Your task to perform on an android device: check the backup settings in the google photos Image 0: 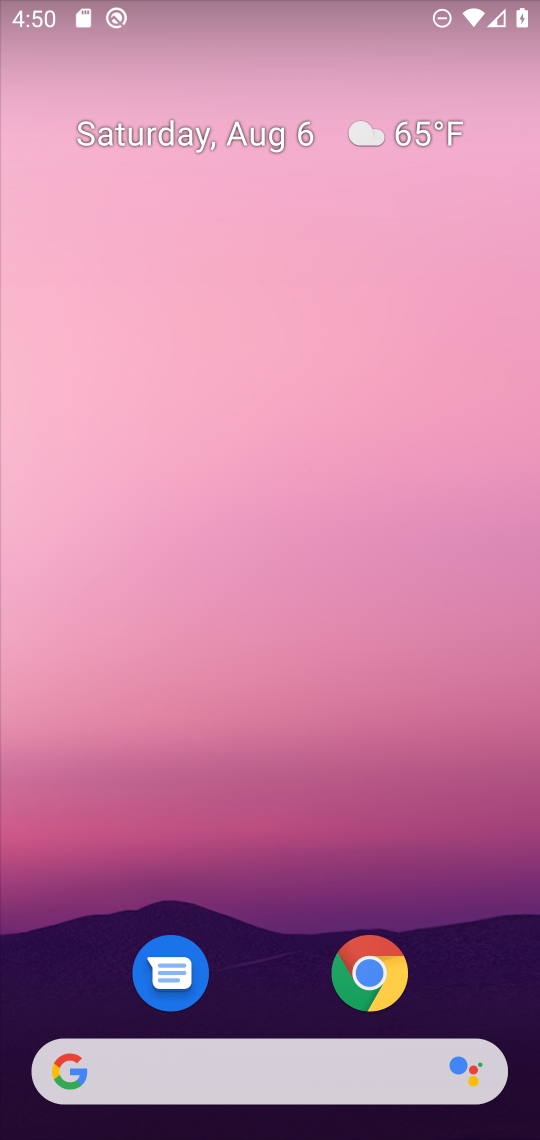
Step 0: drag from (272, 968) to (246, 87)
Your task to perform on an android device: check the backup settings in the google photos Image 1: 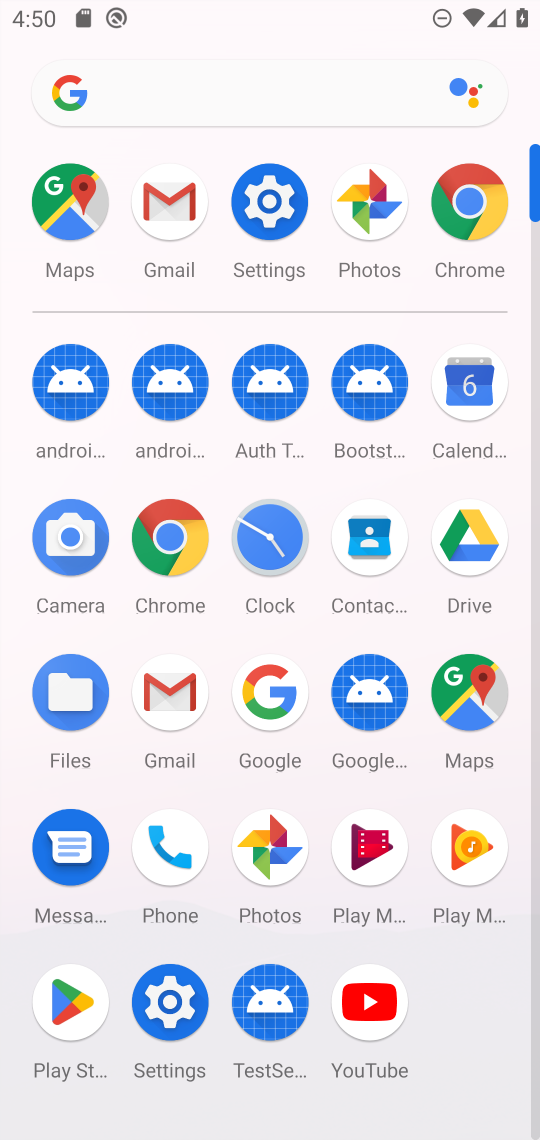
Step 1: click (270, 838)
Your task to perform on an android device: check the backup settings in the google photos Image 2: 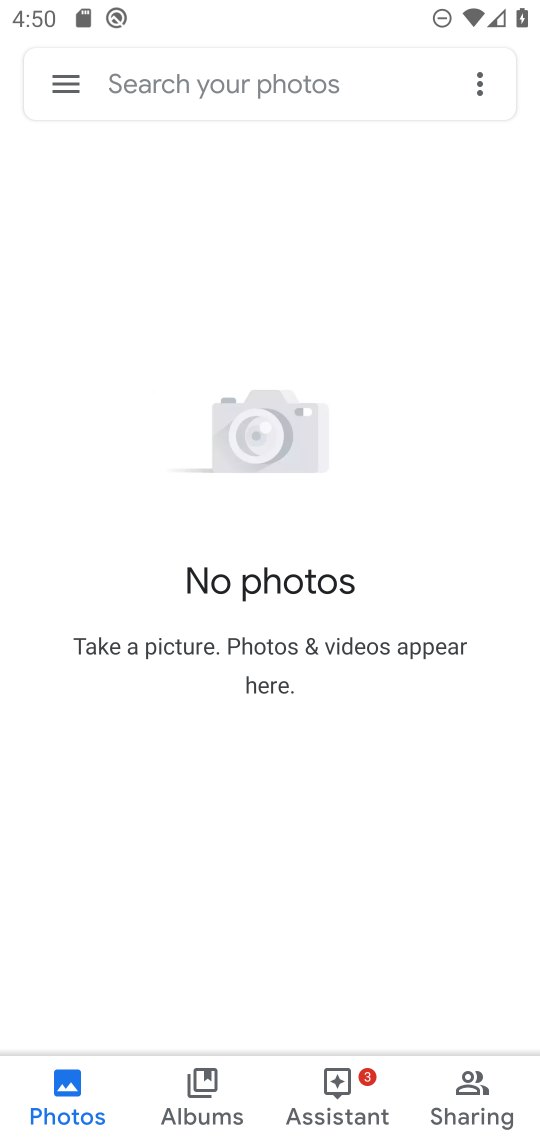
Step 2: click (62, 83)
Your task to perform on an android device: check the backup settings in the google photos Image 3: 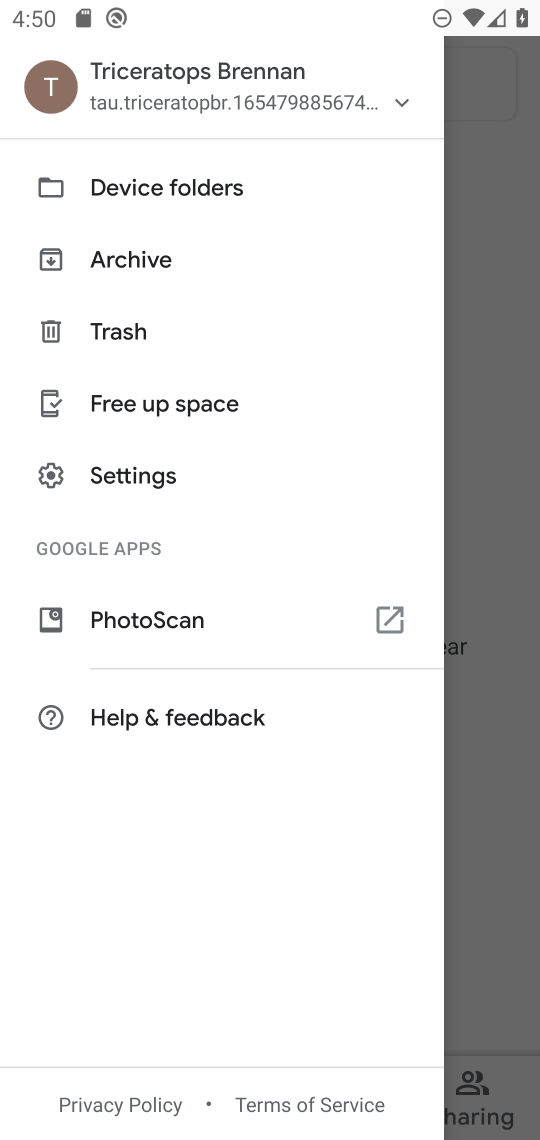
Step 3: click (134, 467)
Your task to perform on an android device: check the backup settings in the google photos Image 4: 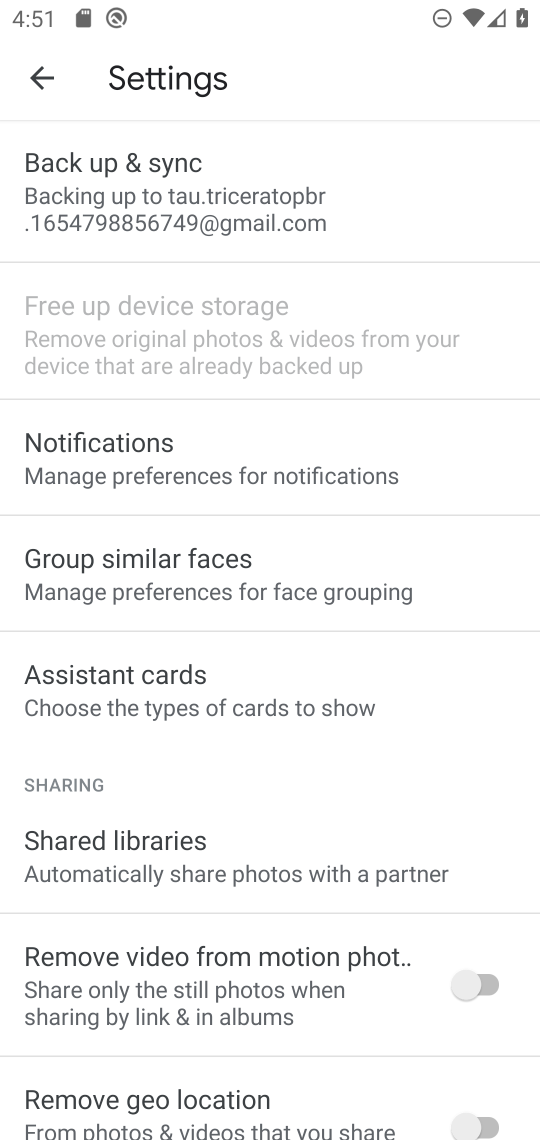
Step 4: click (264, 212)
Your task to perform on an android device: check the backup settings in the google photos Image 5: 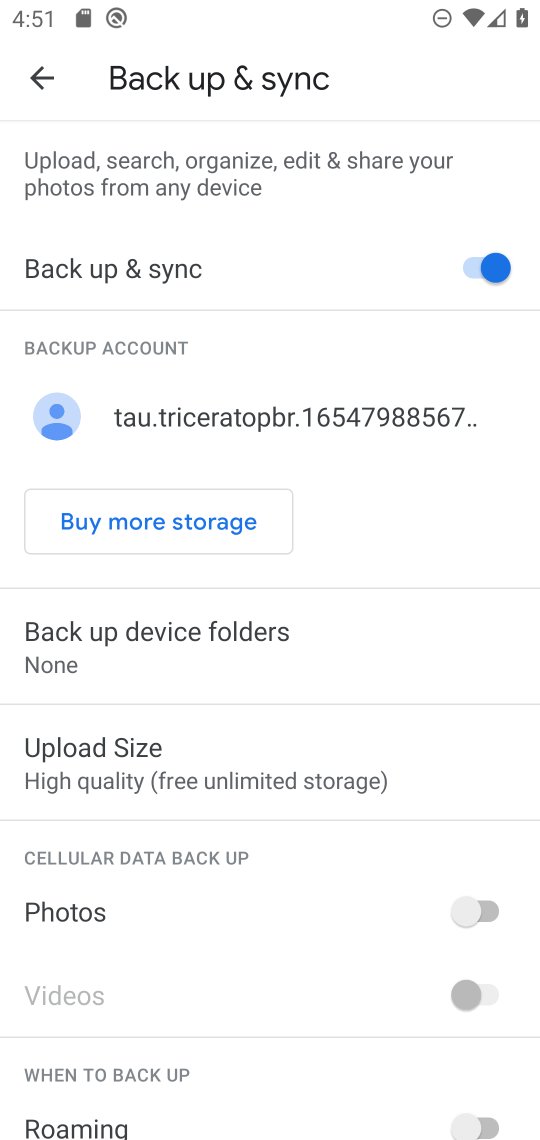
Step 5: task complete